Your task to perform on an android device: change text size in settings app Image 0: 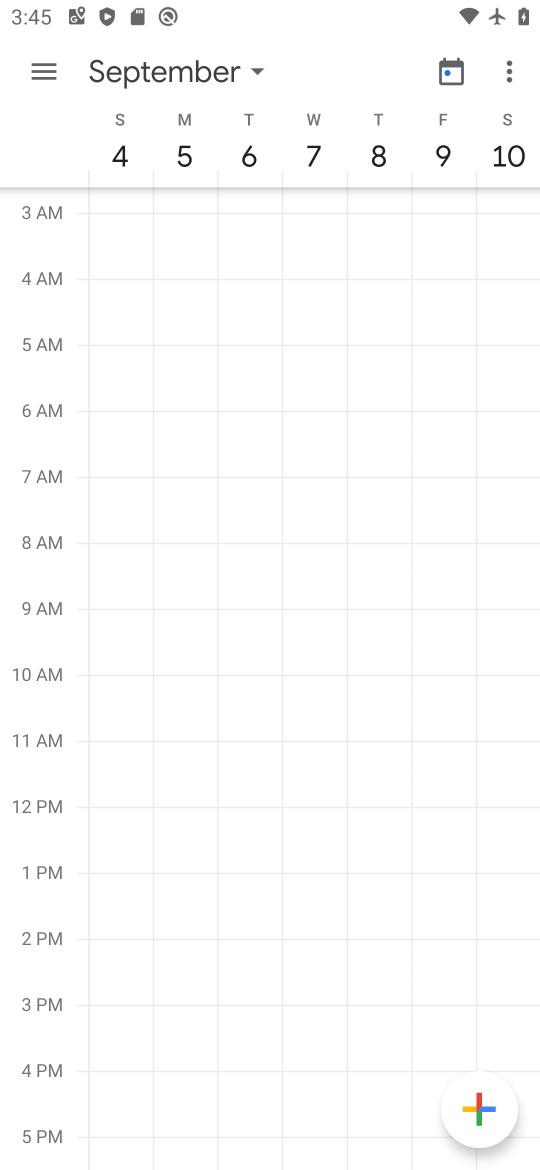
Step 0: press home button
Your task to perform on an android device: change text size in settings app Image 1: 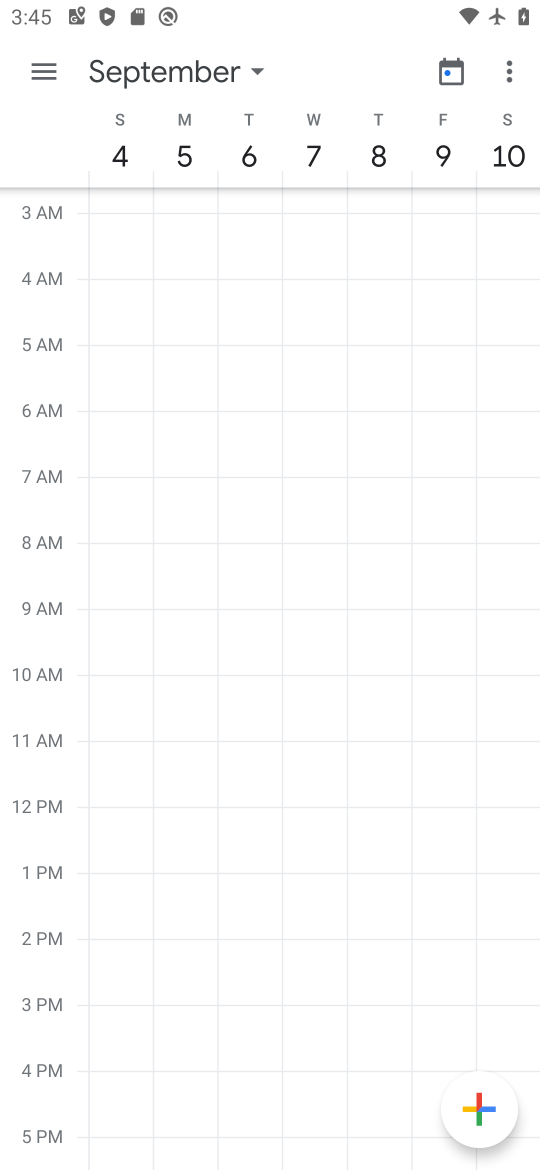
Step 1: press home button
Your task to perform on an android device: change text size in settings app Image 2: 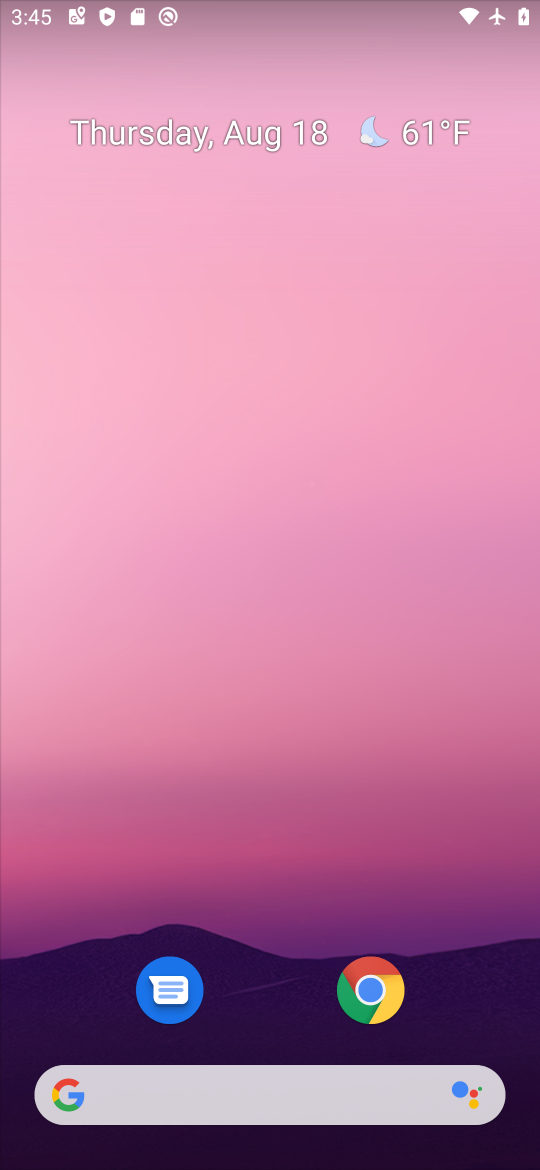
Step 2: drag from (220, 891) to (298, 165)
Your task to perform on an android device: change text size in settings app Image 3: 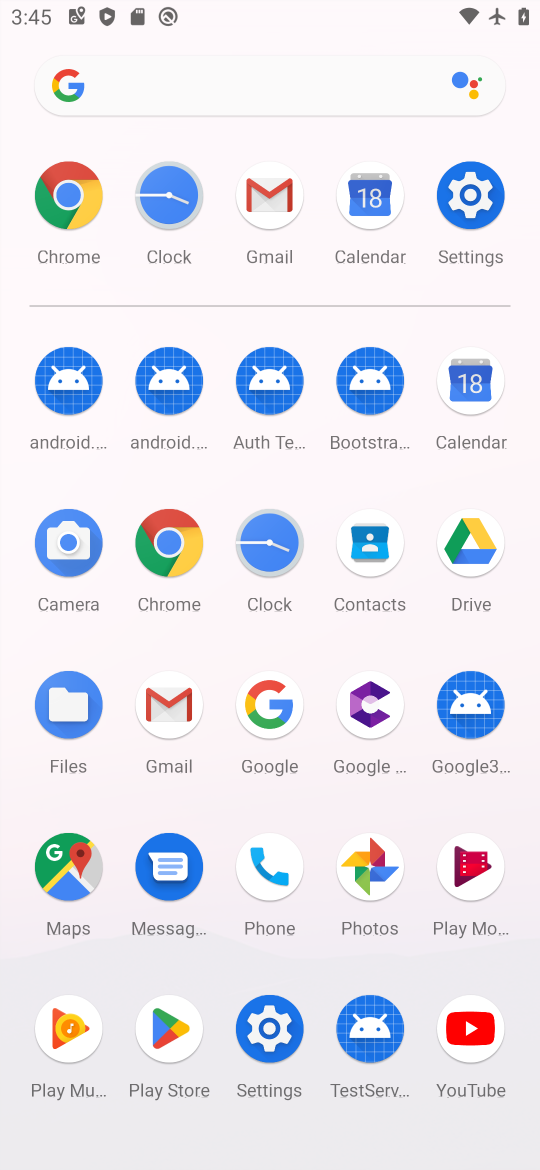
Step 3: click (279, 1031)
Your task to perform on an android device: change text size in settings app Image 4: 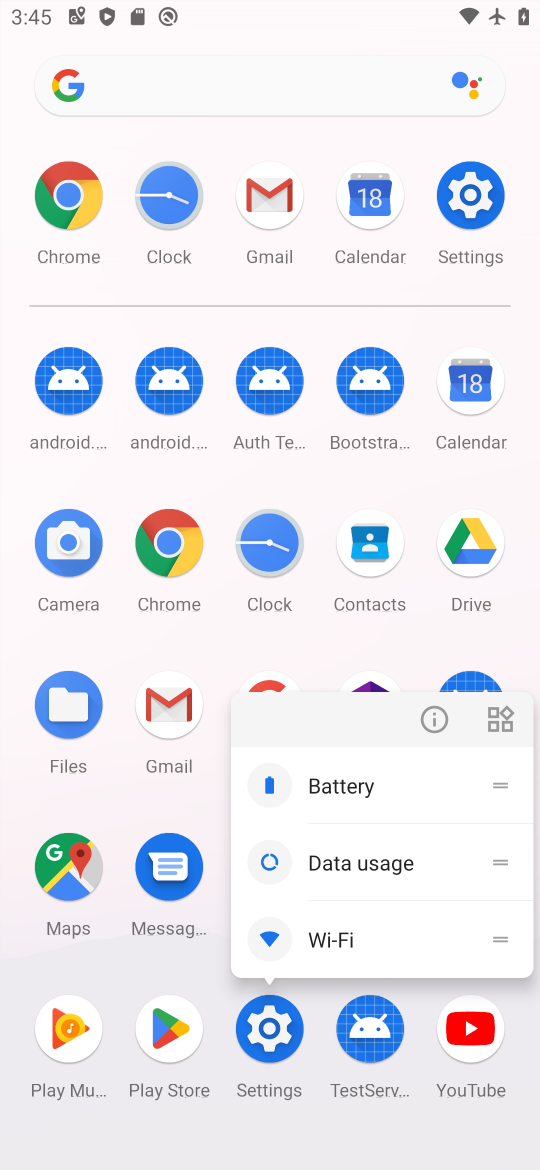
Step 4: click (270, 1031)
Your task to perform on an android device: change text size in settings app Image 5: 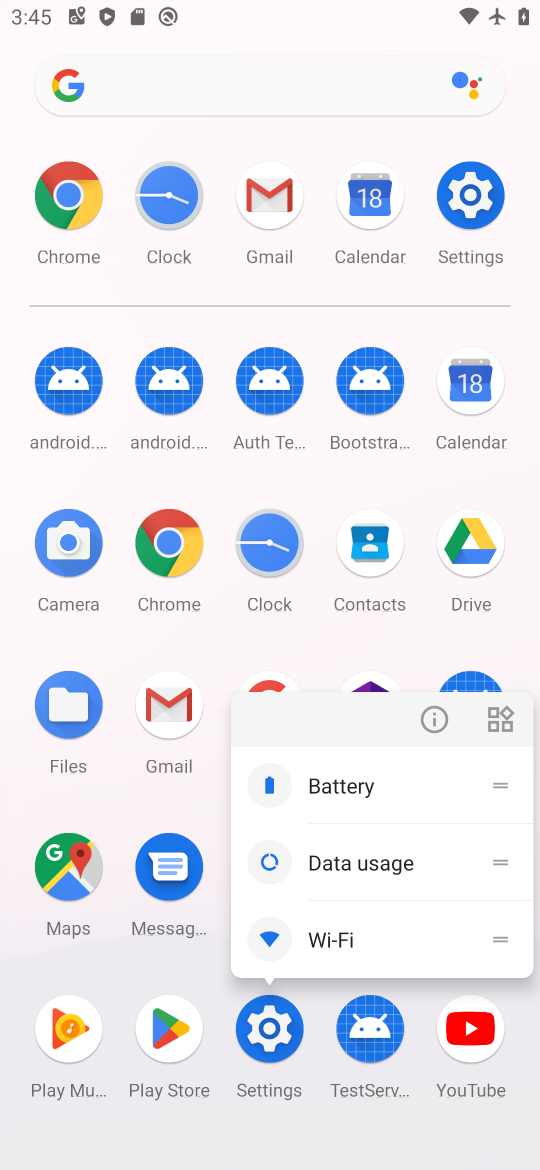
Step 5: click (272, 1024)
Your task to perform on an android device: change text size in settings app Image 6: 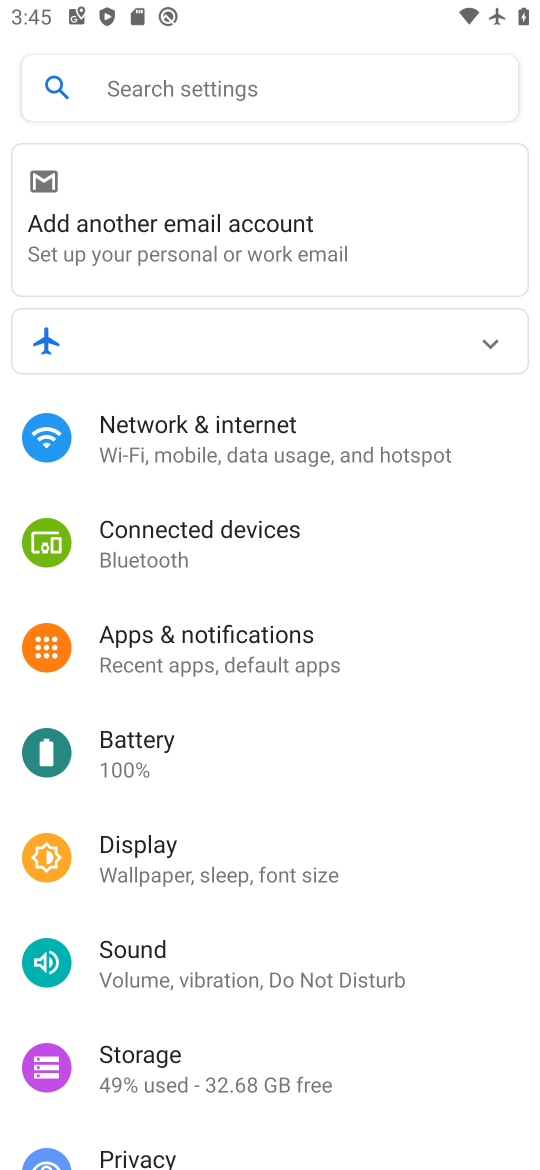
Step 6: drag from (367, 937) to (440, 104)
Your task to perform on an android device: change text size in settings app Image 7: 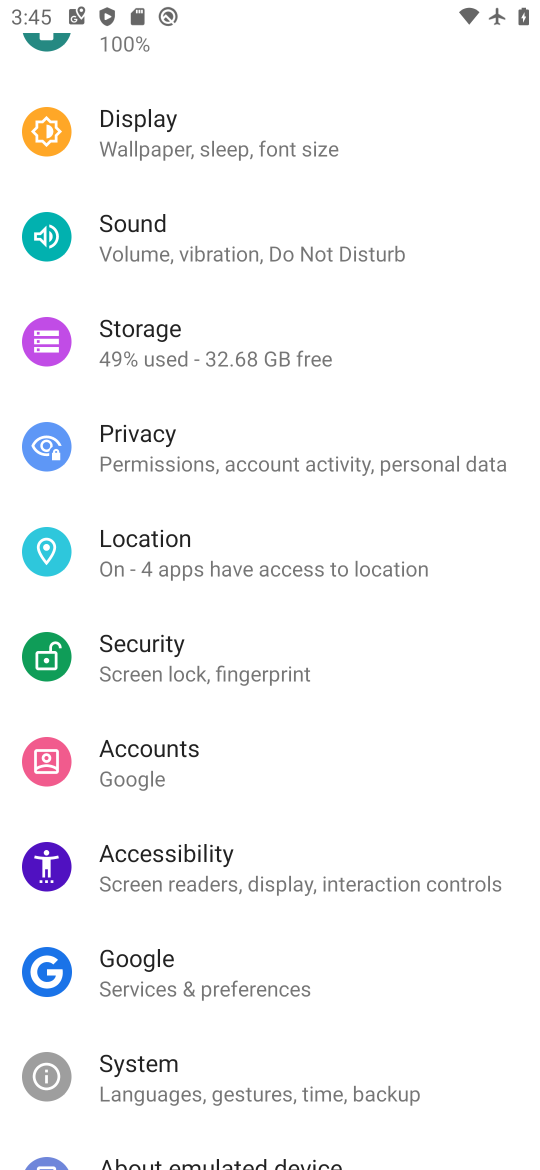
Step 7: click (167, 149)
Your task to perform on an android device: change text size in settings app Image 8: 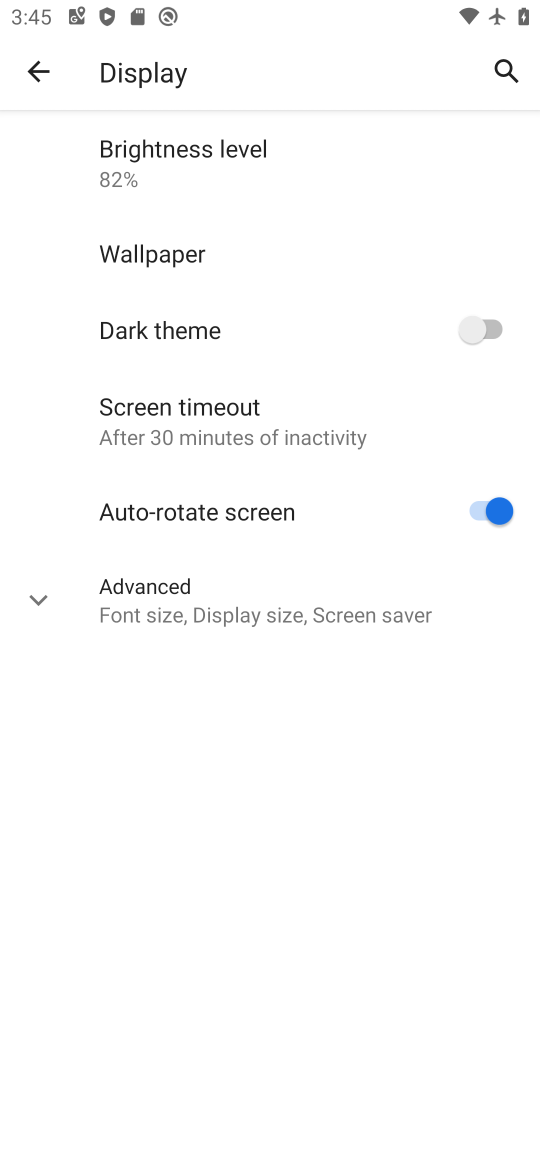
Step 8: click (397, 612)
Your task to perform on an android device: change text size in settings app Image 9: 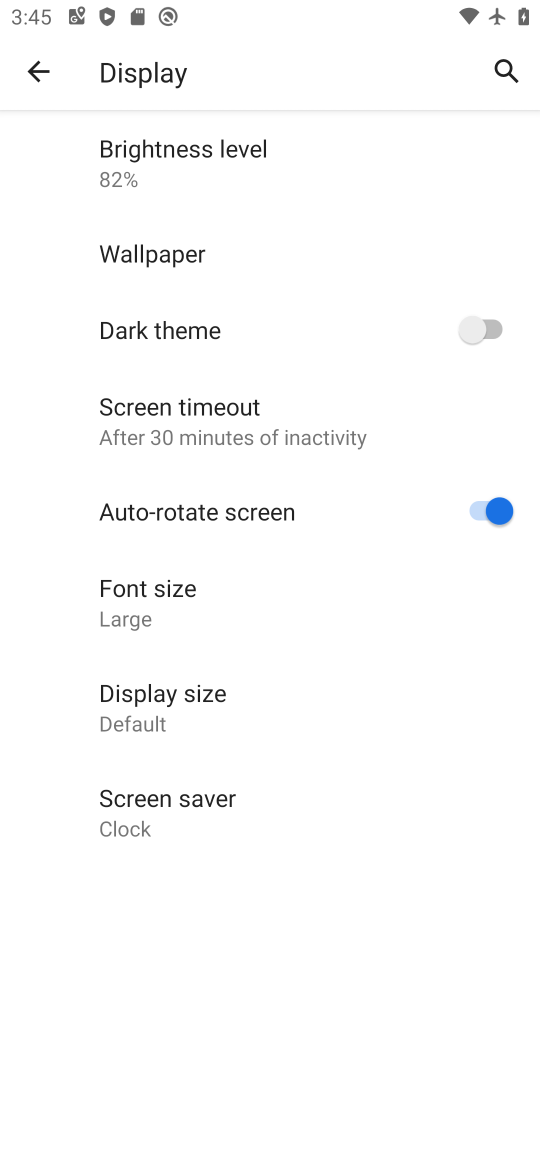
Step 9: click (140, 621)
Your task to perform on an android device: change text size in settings app Image 10: 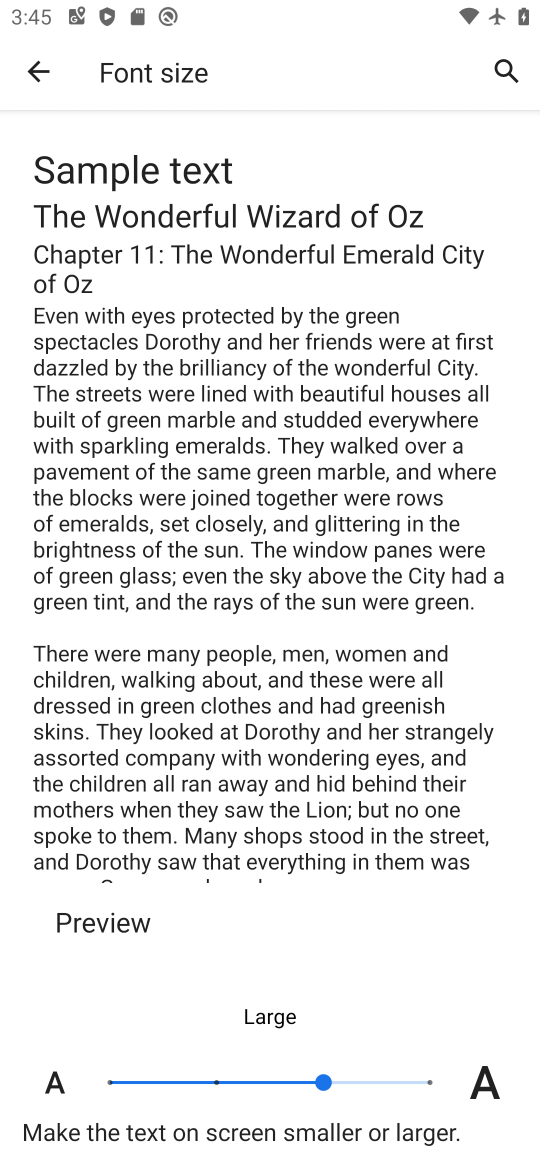
Step 10: click (226, 1075)
Your task to perform on an android device: change text size in settings app Image 11: 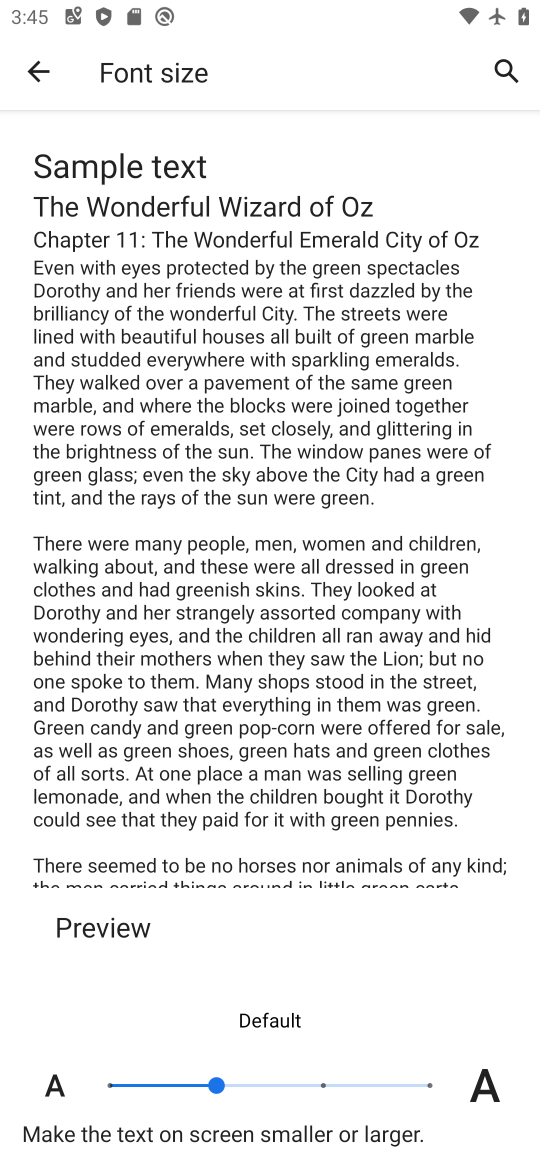
Step 11: task complete